Your task to perform on an android device: check data usage Image 0: 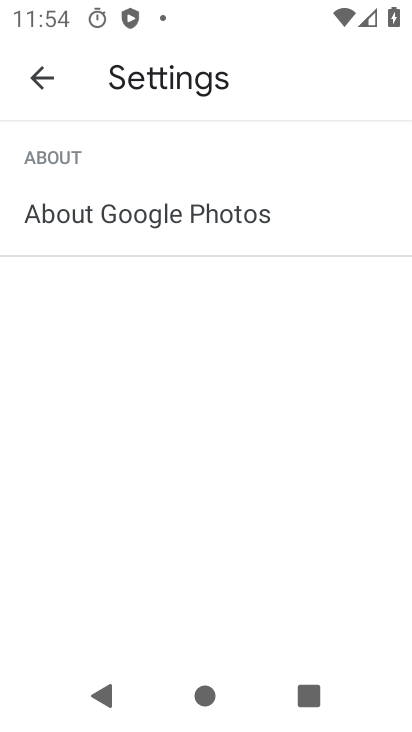
Step 0: press back button
Your task to perform on an android device: check data usage Image 1: 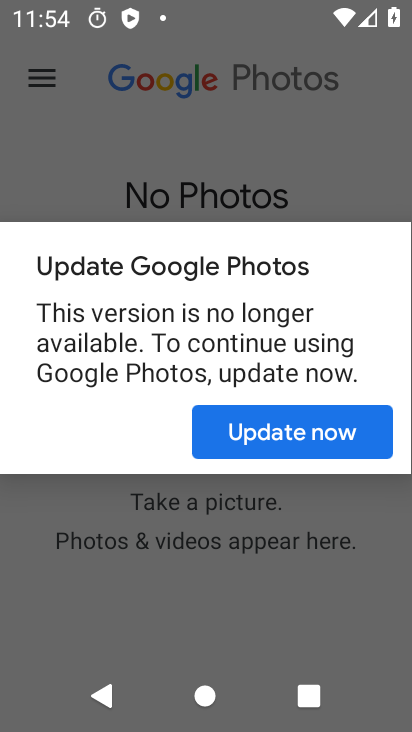
Step 1: press back button
Your task to perform on an android device: check data usage Image 2: 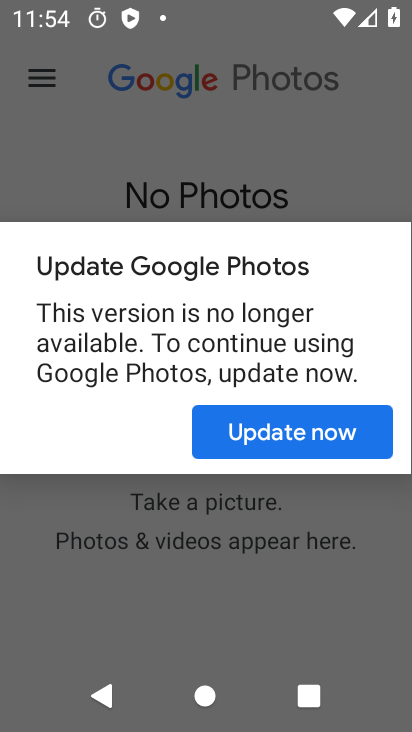
Step 2: press home button
Your task to perform on an android device: check data usage Image 3: 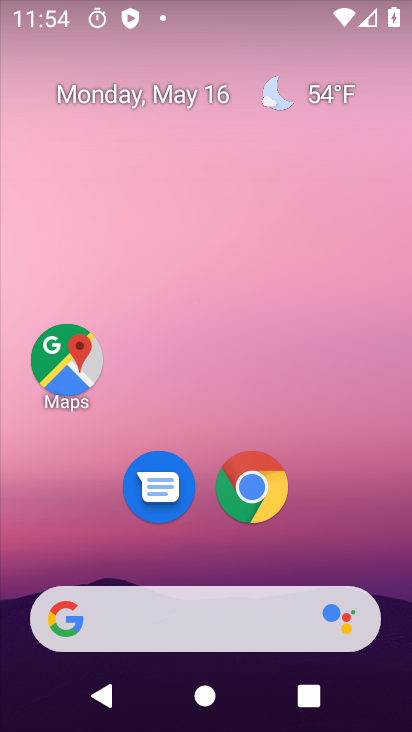
Step 3: drag from (196, 544) to (315, 24)
Your task to perform on an android device: check data usage Image 4: 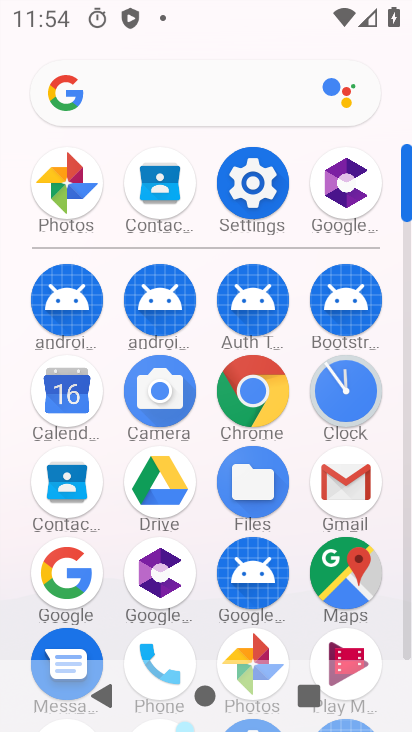
Step 4: click (257, 188)
Your task to perform on an android device: check data usage Image 5: 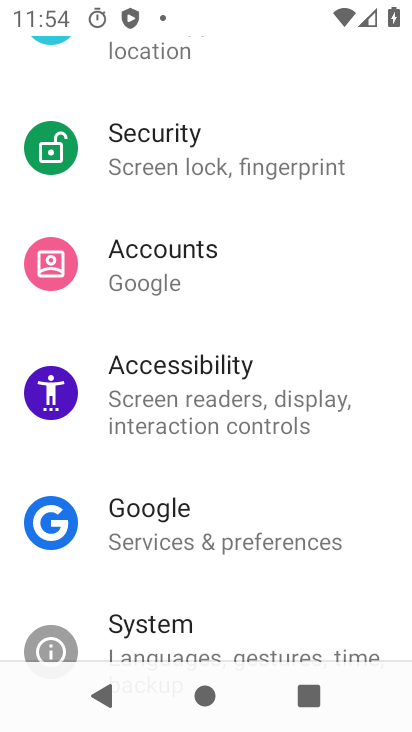
Step 5: drag from (209, 125) to (155, 562)
Your task to perform on an android device: check data usage Image 6: 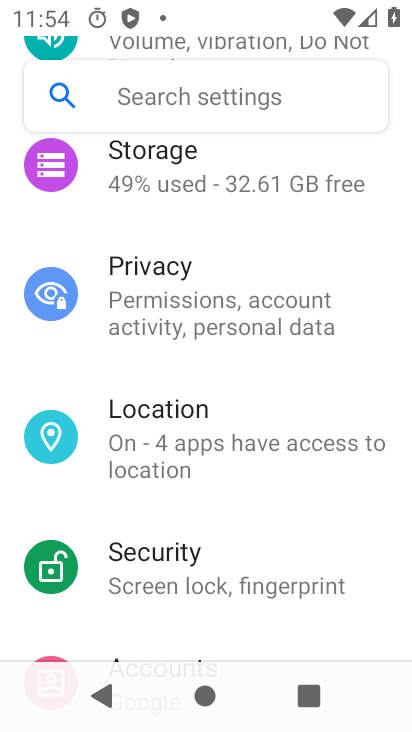
Step 6: drag from (182, 246) to (177, 491)
Your task to perform on an android device: check data usage Image 7: 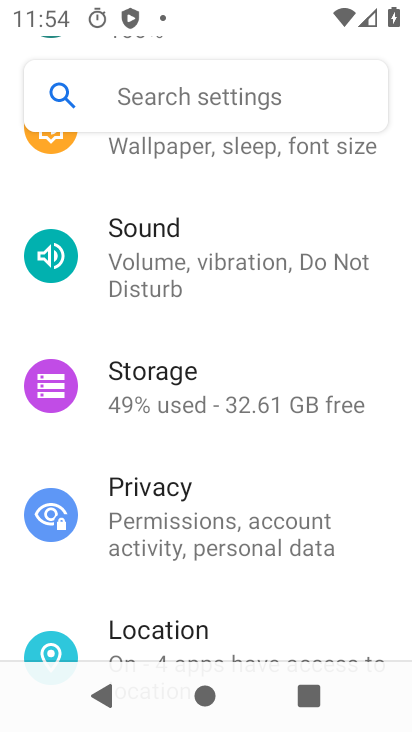
Step 7: drag from (184, 193) to (163, 712)
Your task to perform on an android device: check data usage Image 8: 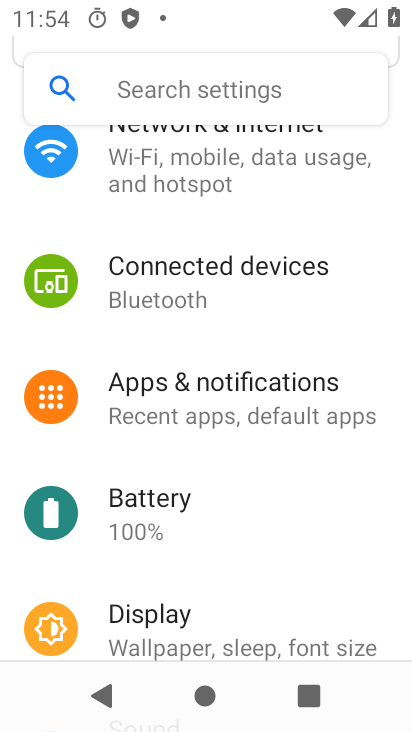
Step 8: click (203, 168)
Your task to perform on an android device: check data usage Image 9: 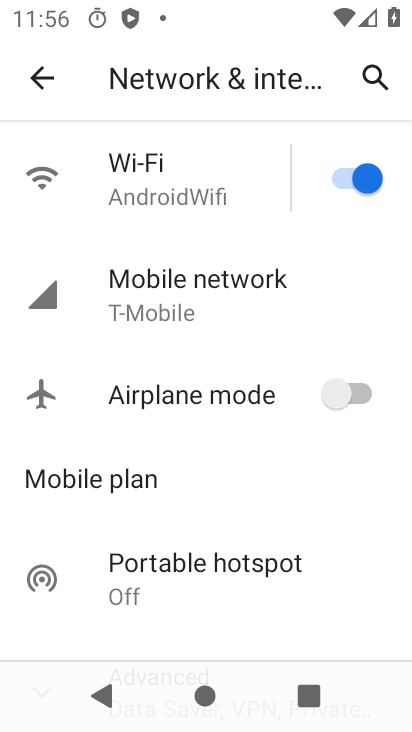
Step 9: click (221, 334)
Your task to perform on an android device: check data usage Image 10: 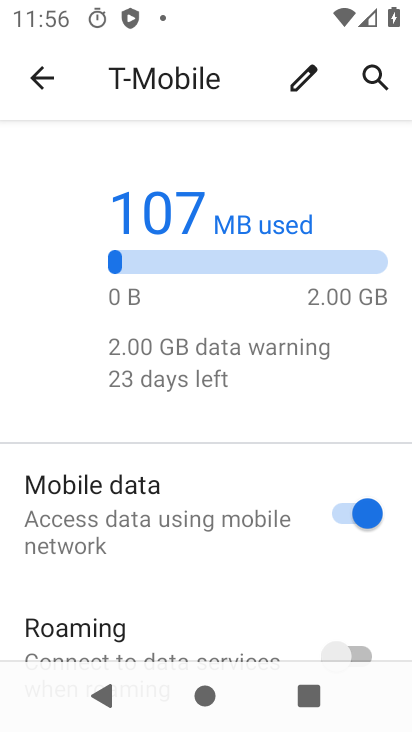
Step 10: drag from (148, 619) to (170, 368)
Your task to perform on an android device: check data usage Image 11: 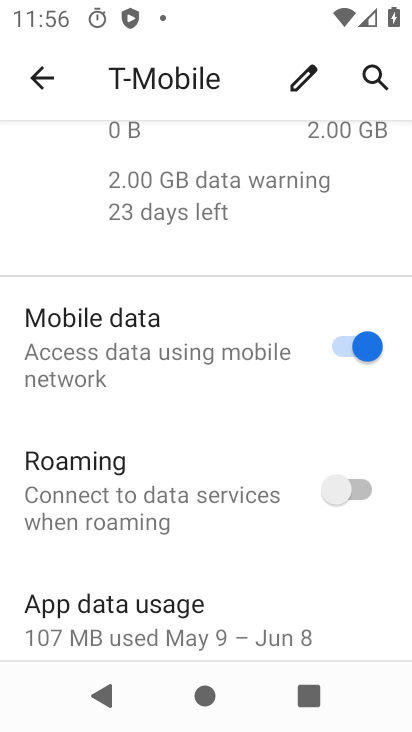
Step 11: click (111, 606)
Your task to perform on an android device: check data usage Image 12: 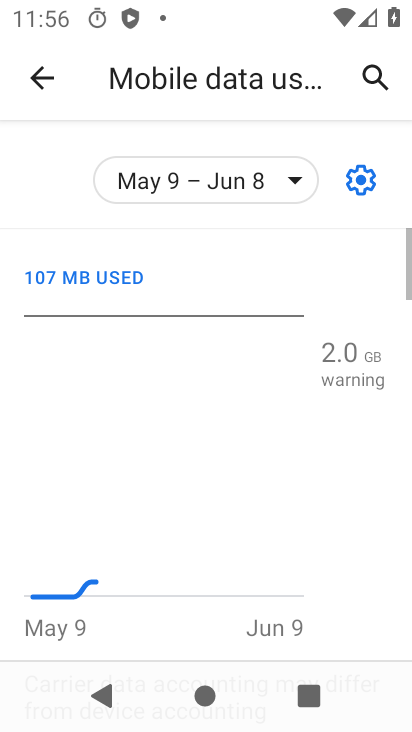
Step 12: task complete